Your task to perform on an android device: Open Chrome and go to the settings page Image 0: 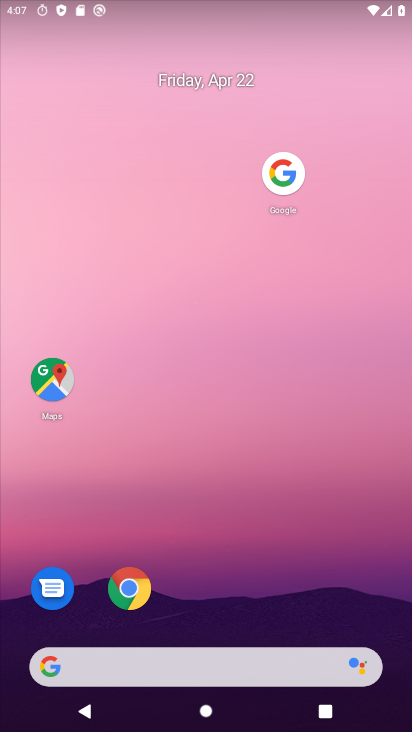
Step 0: click (135, 590)
Your task to perform on an android device: Open Chrome and go to the settings page Image 1: 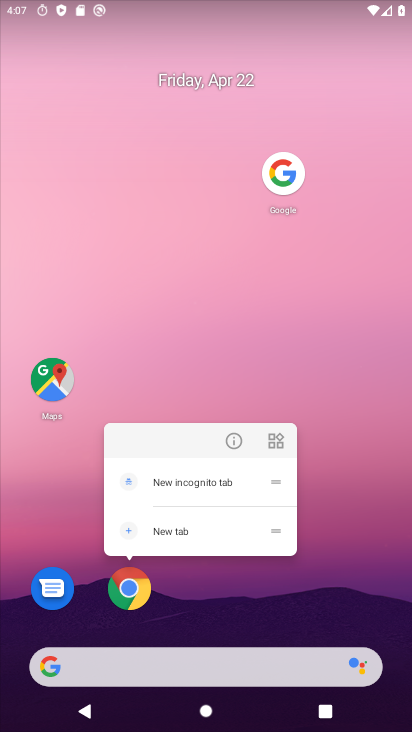
Step 1: click (134, 590)
Your task to perform on an android device: Open Chrome and go to the settings page Image 2: 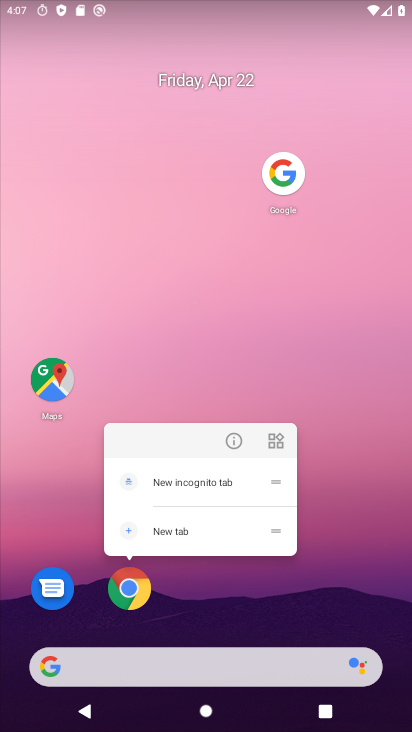
Step 2: click (126, 589)
Your task to perform on an android device: Open Chrome and go to the settings page Image 3: 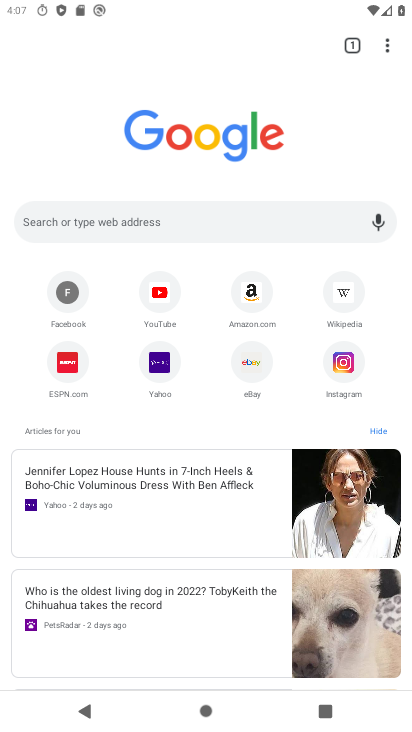
Step 3: task complete